Your task to perform on an android device: Do I have any events tomorrow? Image 0: 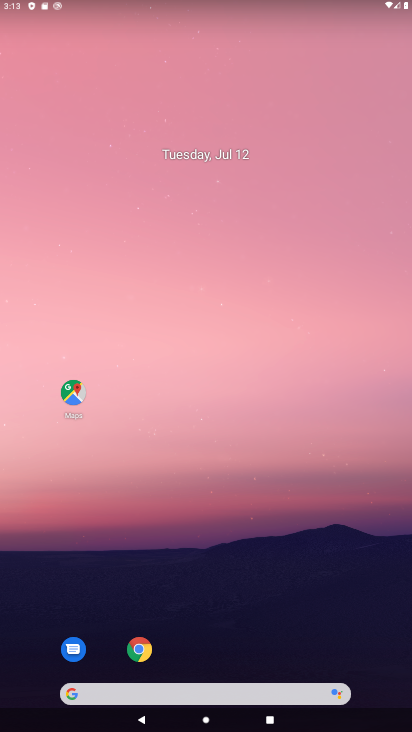
Step 0: drag from (6, 472) to (391, 486)
Your task to perform on an android device: Do I have any events tomorrow? Image 1: 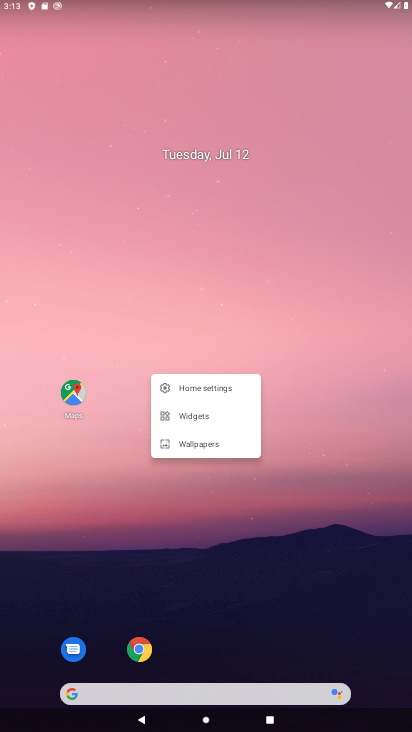
Step 1: click (116, 257)
Your task to perform on an android device: Do I have any events tomorrow? Image 2: 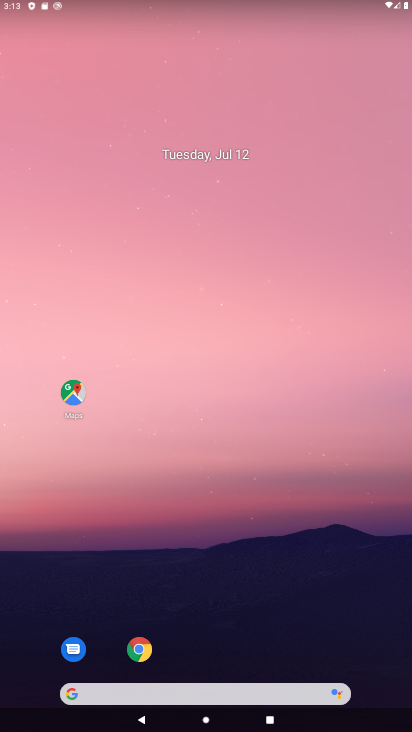
Step 2: drag from (4, 233) to (408, 345)
Your task to perform on an android device: Do I have any events tomorrow? Image 3: 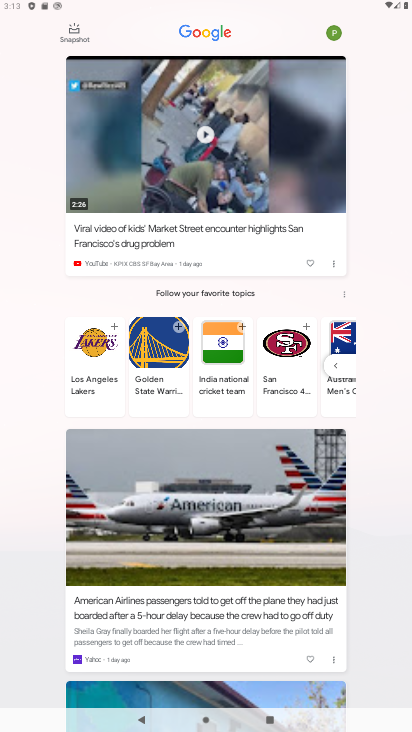
Step 3: press home button
Your task to perform on an android device: Do I have any events tomorrow? Image 4: 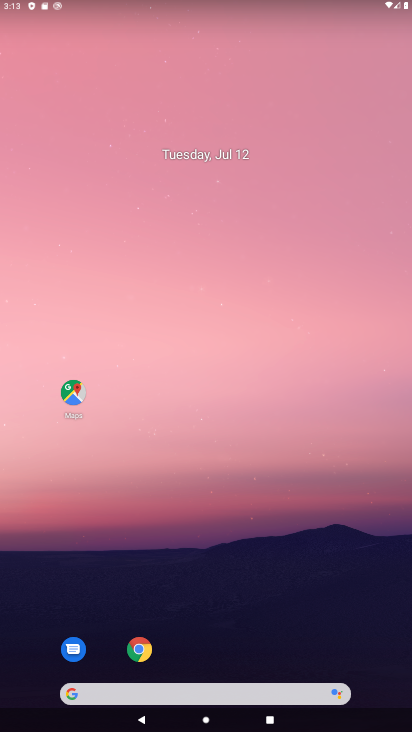
Step 4: drag from (240, 645) to (198, 81)
Your task to perform on an android device: Do I have any events tomorrow? Image 5: 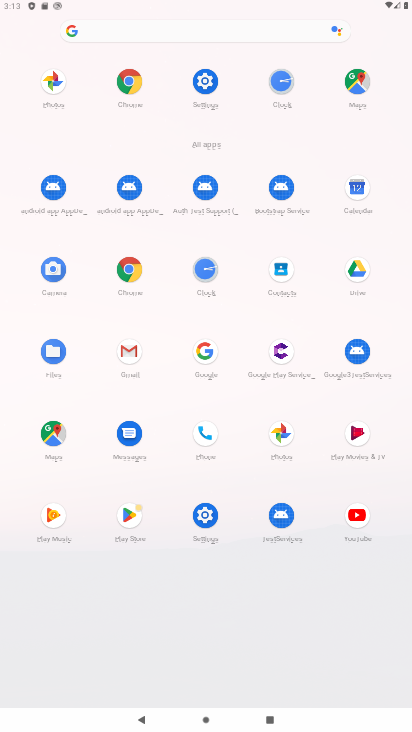
Step 5: click (354, 187)
Your task to perform on an android device: Do I have any events tomorrow? Image 6: 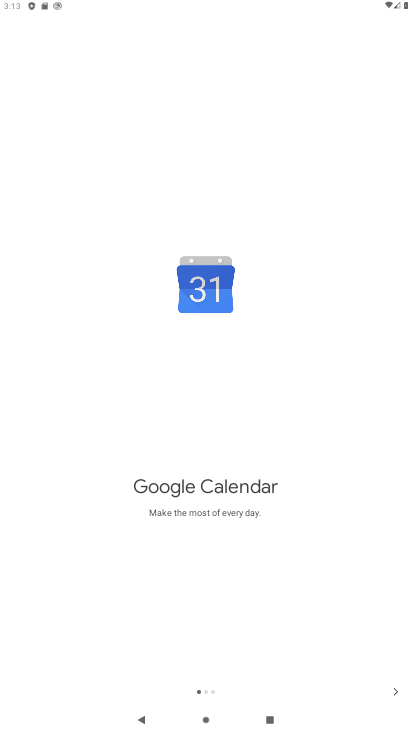
Step 6: click (393, 690)
Your task to perform on an android device: Do I have any events tomorrow? Image 7: 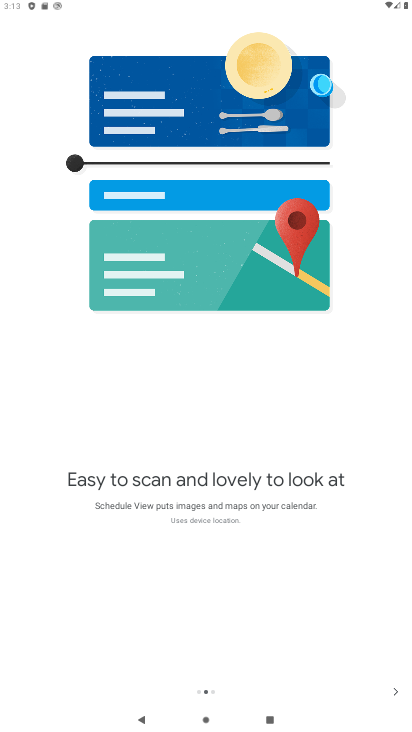
Step 7: click (392, 684)
Your task to perform on an android device: Do I have any events tomorrow? Image 8: 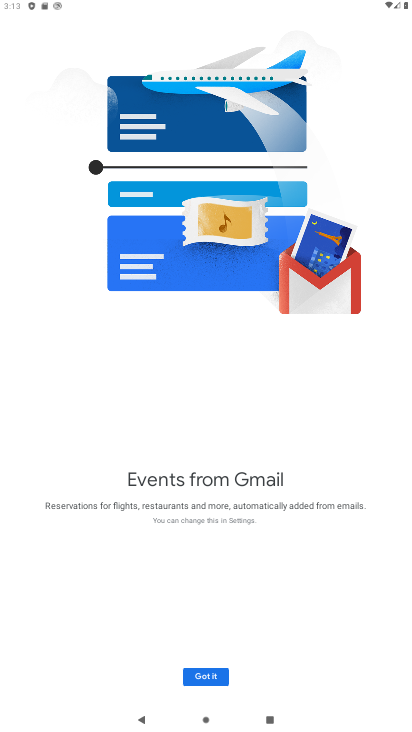
Step 8: click (208, 670)
Your task to perform on an android device: Do I have any events tomorrow? Image 9: 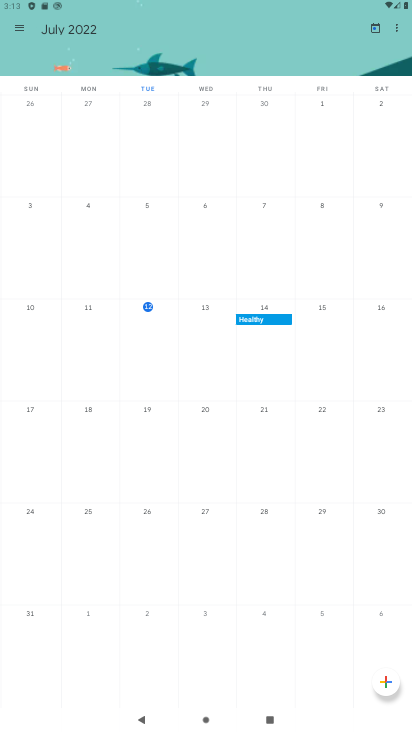
Step 9: drag from (358, 415) to (16, 366)
Your task to perform on an android device: Do I have any events tomorrow? Image 10: 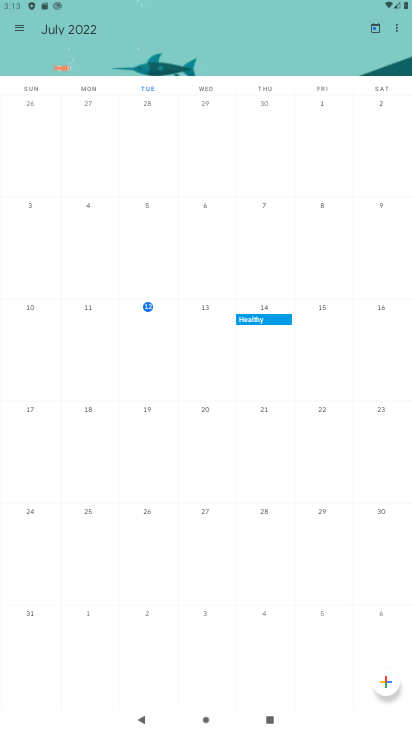
Step 10: click (200, 309)
Your task to perform on an android device: Do I have any events tomorrow? Image 11: 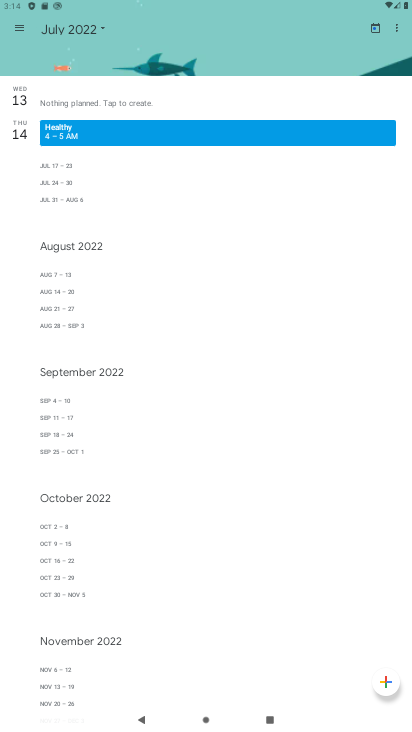
Step 11: click (17, 131)
Your task to perform on an android device: Do I have any events tomorrow? Image 12: 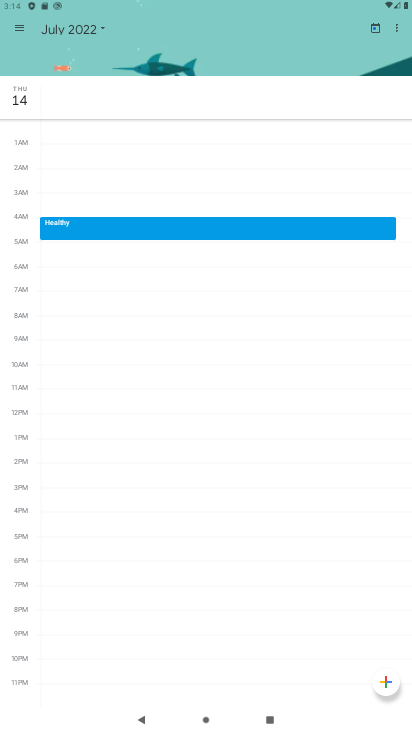
Step 12: click (105, 28)
Your task to perform on an android device: Do I have any events tomorrow? Image 13: 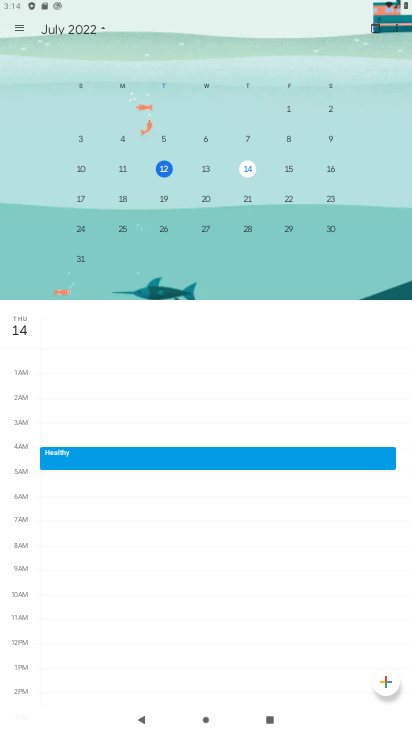
Step 13: click (205, 166)
Your task to perform on an android device: Do I have any events tomorrow? Image 14: 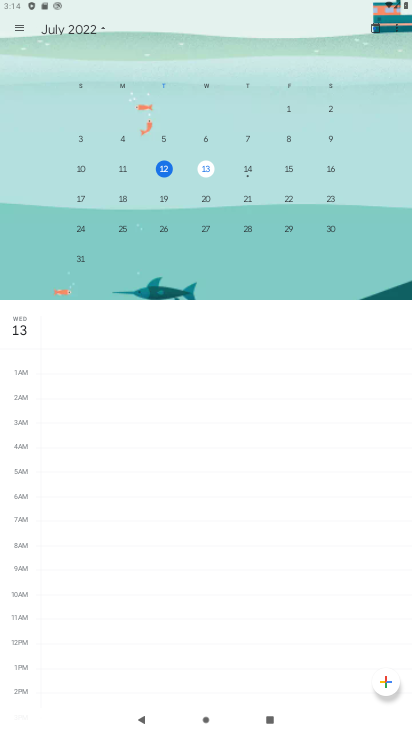
Step 14: click (202, 166)
Your task to perform on an android device: Do I have any events tomorrow? Image 15: 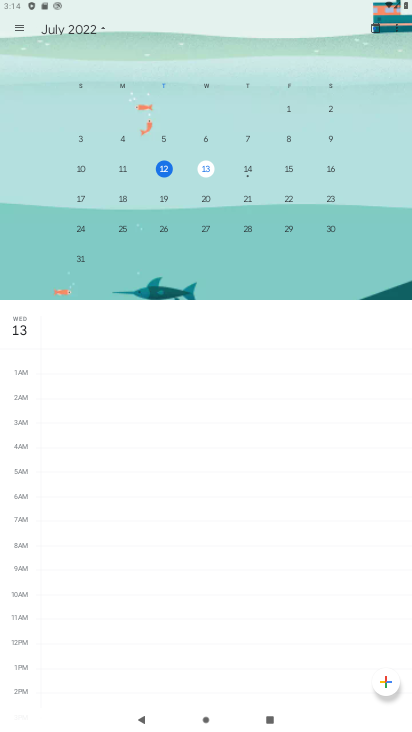
Step 15: click (102, 23)
Your task to perform on an android device: Do I have any events tomorrow? Image 16: 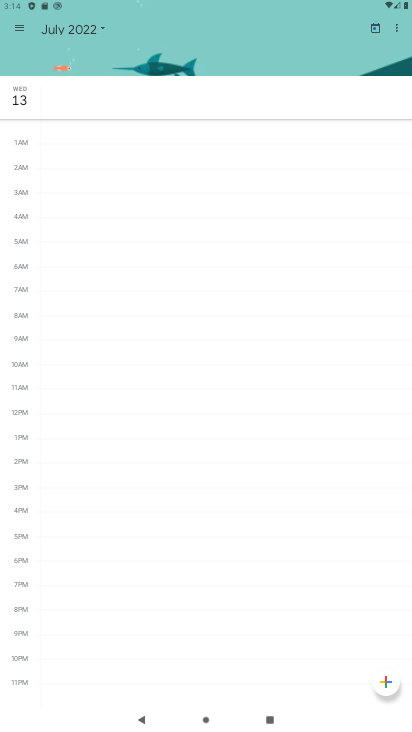
Step 16: task complete